Your task to perform on an android device: Search for Italian restaurants on Maps Image 0: 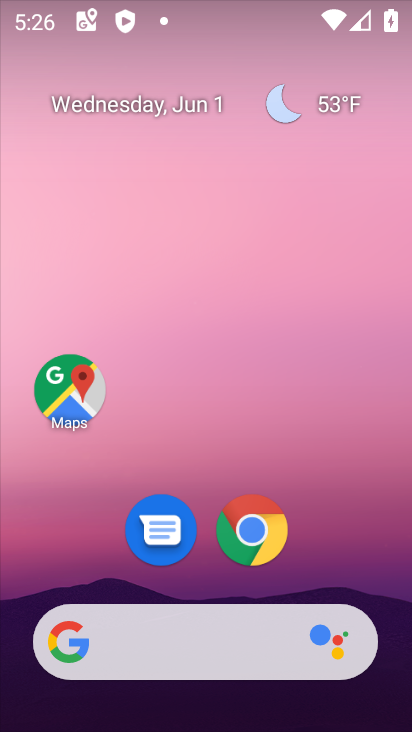
Step 0: click (61, 385)
Your task to perform on an android device: Search for Italian restaurants on Maps Image 1: 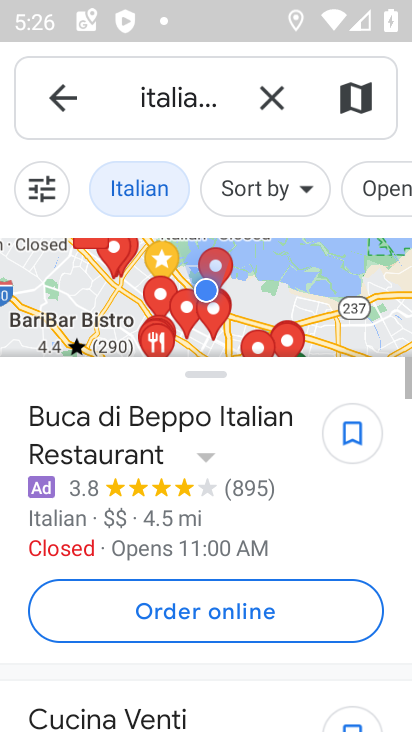
Step 1: task complete